Your task to perform on an android device: turn on showing notifications on the lock screen Image 0: 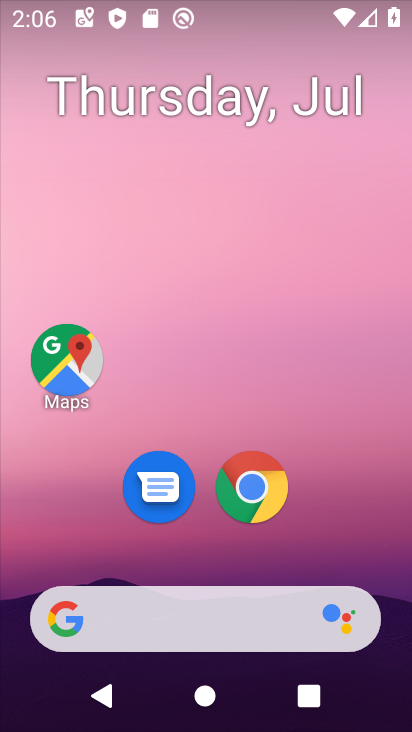
Step 0: drag from (344, 562) to (356, 217)
Your task to perform on an android device: turn on showing notifications on the lock screen Image 1: 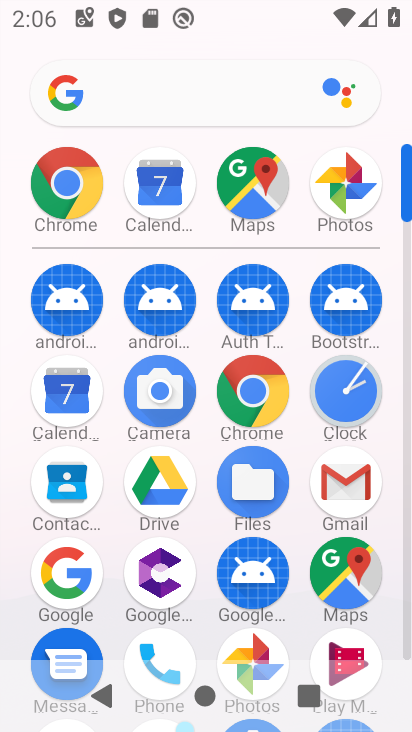
Step 1: drag from (297, 525) to (287, 260)
Your task to perform on an android device: turn on showing notifications on the lock screen Image 2: 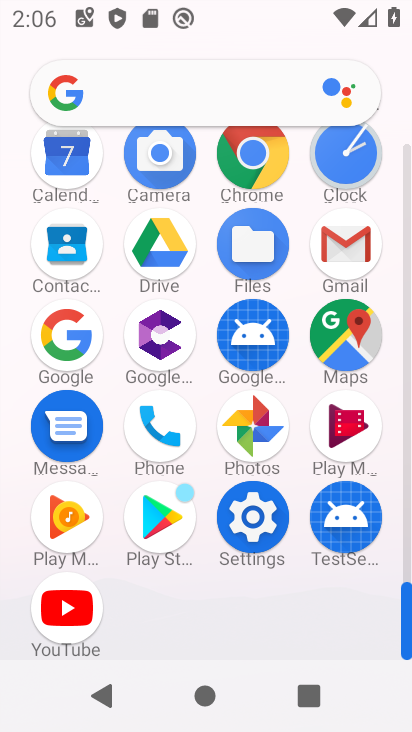
Step 2: click (251, 522)
Your task to perform on an android device: turn on showing notifications on the lock screen Image 3: 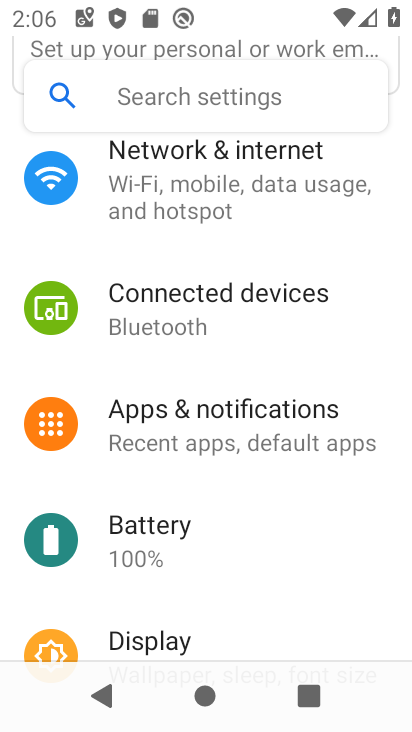
Step 3: click (327, 406)
Your task to perform on an android device: turn on showing notifications on the lock screen Image 4: 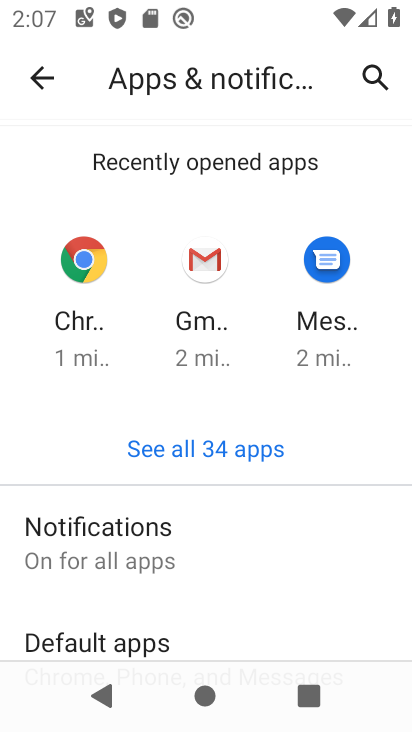
Step 4: click (217, 559)
Your task to perform on an android device: turn on showing notifications on the lock screen Image 5: 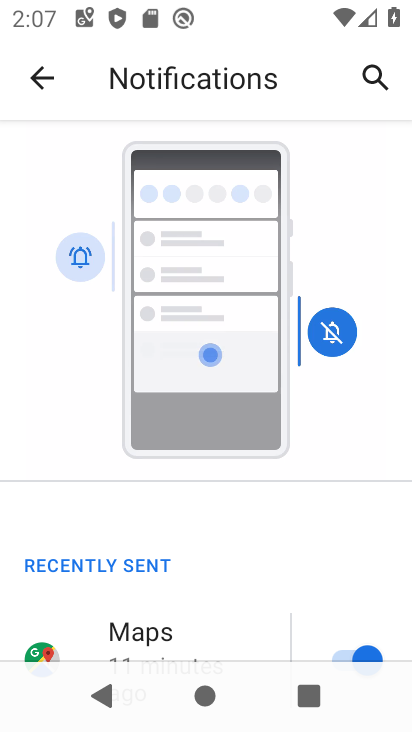
Step 5: drag from (288, 526) to (291, 423)
Your task to perform on an android device: turn on showing notifications on the lock screen Image 6: 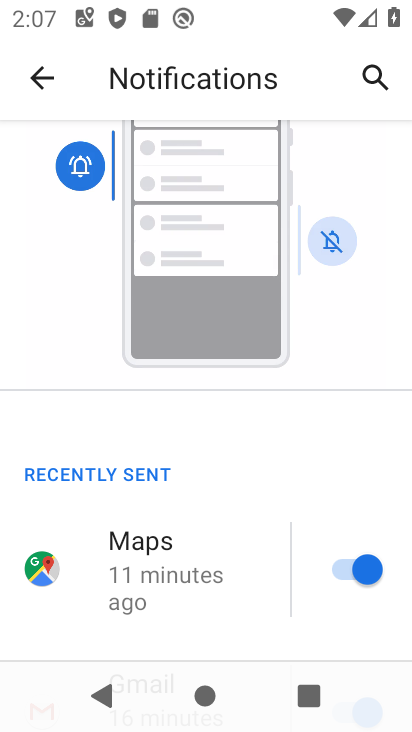
Step 6: drag from (259, 569) to (258, 477)
Your task to perform on an android device: turn on showing notifications on the lock screen Image 7: 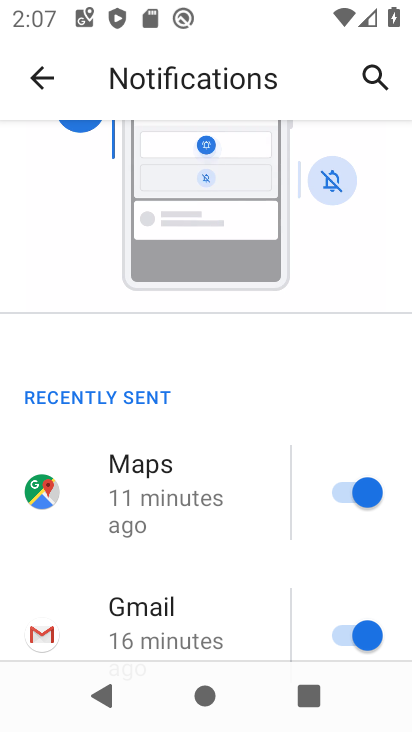
Step 7: drag from (252, 560) to (252, 475)
Your task to perform on an android device: turn on showing notifications on the lock screen Image 8: 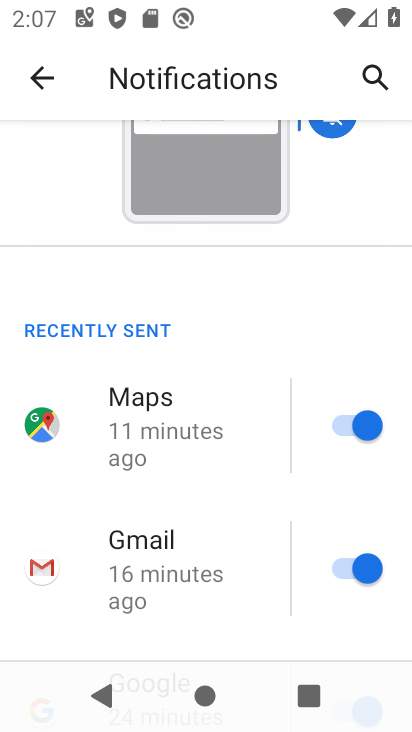
Step 8: drag from (242, 572) to (243, 491)
Your task to perform on an android device: turn on showing notifications on the lock screen Image 9: 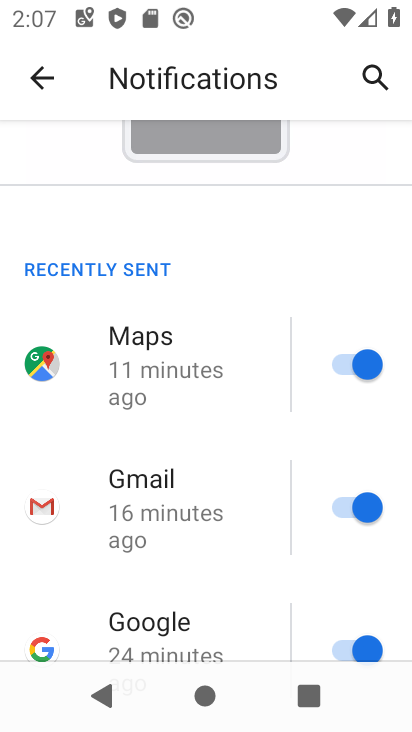
Step 9: drag from (243, 549) to (244, 477)
Your task to perform on an android device: turn on showing notifications on the lock screen Image 10: 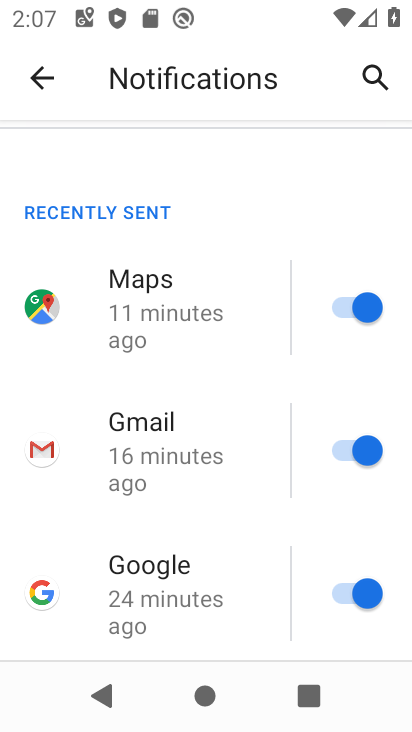
Step 10: drag from (243, 527) to (262, 405)
Your task to perform on an android device: turn on showing notifications on the lock screen Image 11: 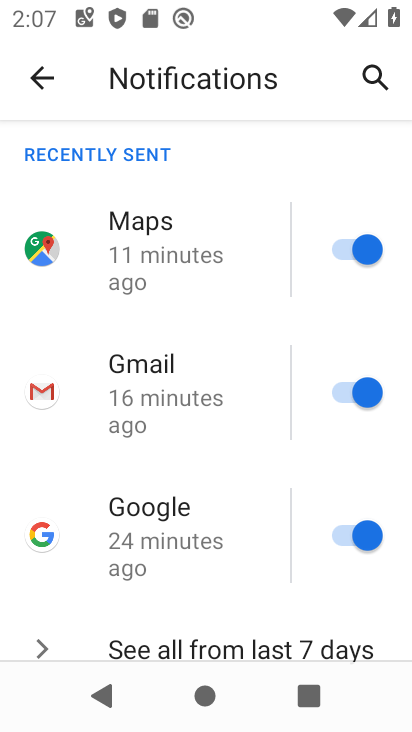
Step 11: drag from (277, 557) to (275, 397)
Your task to perform on an android device: turn on showing notifications on the lock screen Image 12: 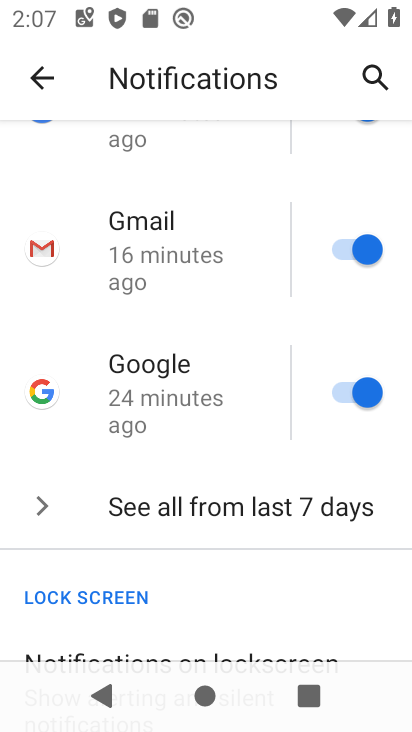
Step 12: drag from (276, 575) to (275, 455)
Your task to perform on an android device: turn on showing notifications on the lock screen Image 13: 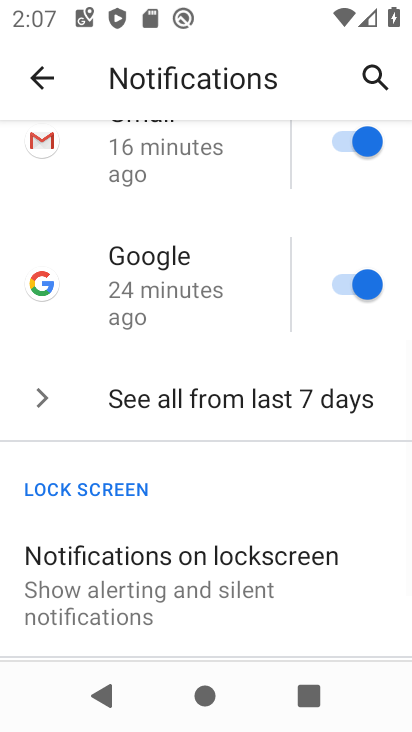
Step 13: click (258, 559)
Your task to perform on an android device: turn on showing notifications on the lock screen Image 14: 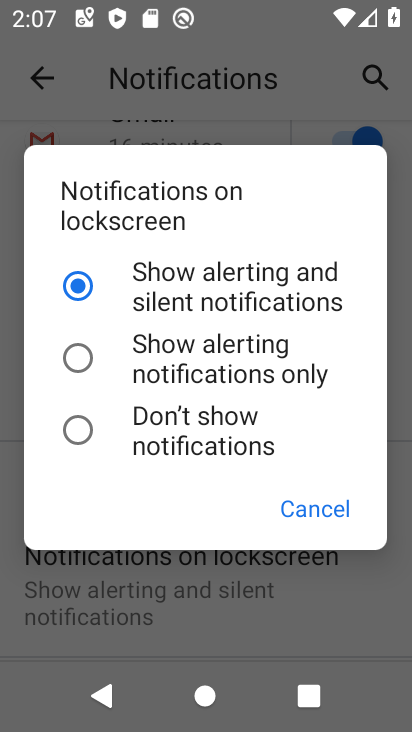
Step 14: task complete